Your task to perform on an android device: Go to notification settings Image 0: 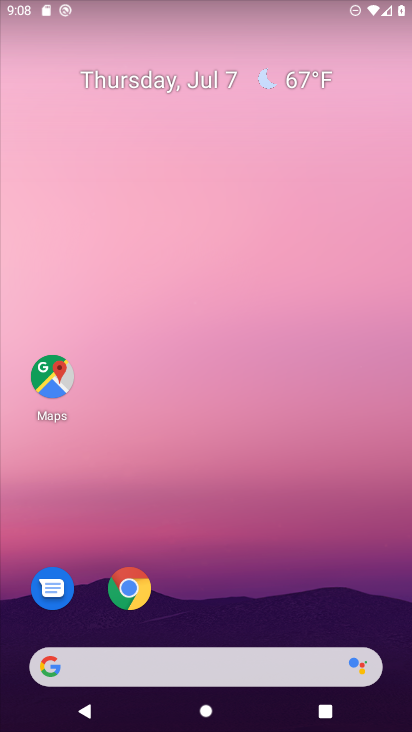
Step 0: drag from (224, 620) to (263, 95)
Your task to perform on an android device: Go to notification settings Image 1: 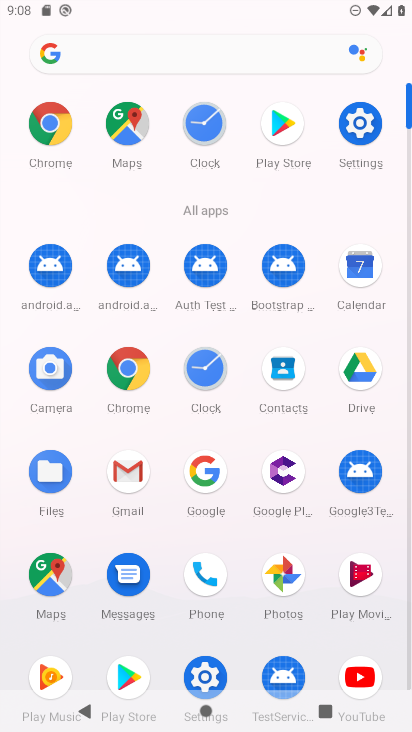
Step 1: click (204, 670)
Your task to perform on an android device: Go to notification settings Image 2: 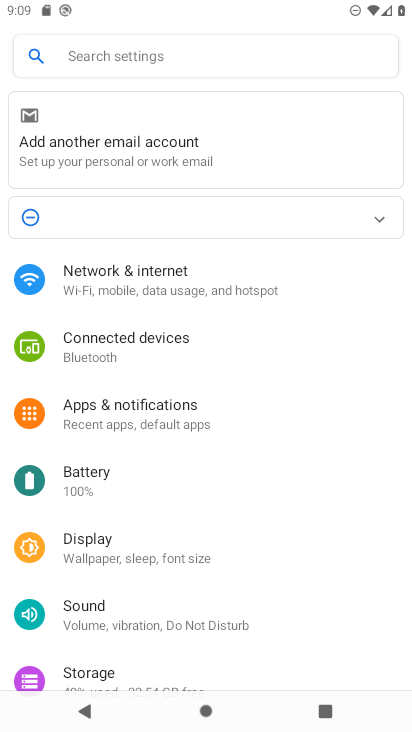
Step 2: click (144, 422)
Your task to perform on an android device: Go to notification settings Image 3: 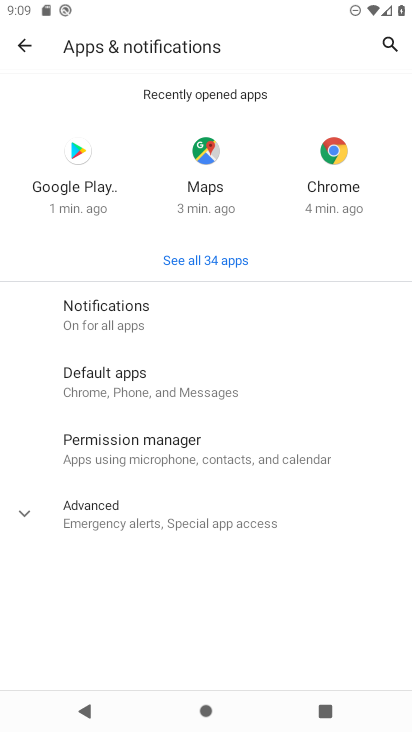
Step 3: click (130, 315)
Your task to perform on an android device: Go to notification settings Image 4: 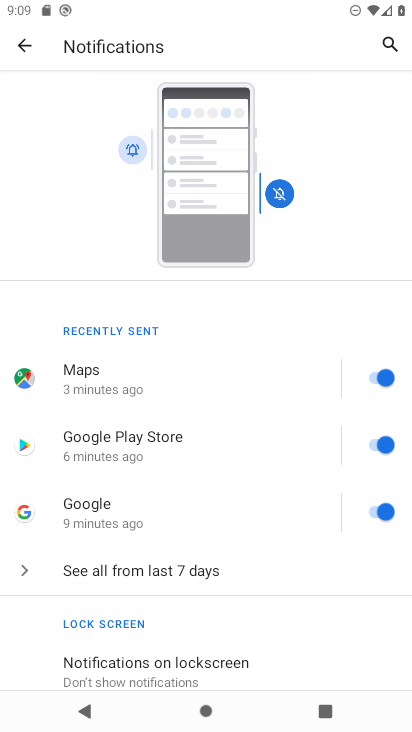
Step 4: task complete